Your task to perform on an android device: empty trash in the gmail app Image 0: 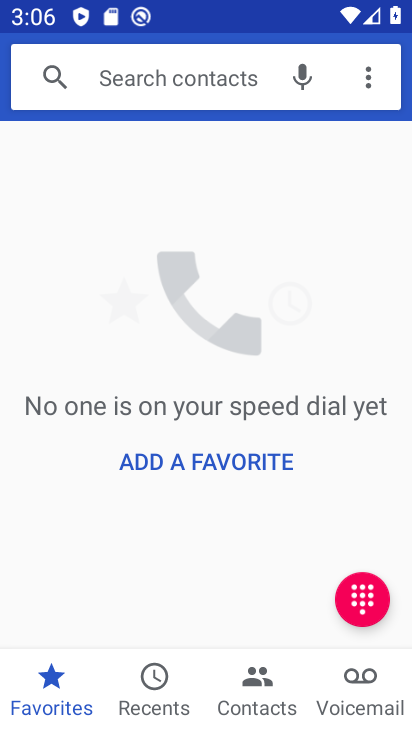
Step 0: press home button
Your task to perform on an android device: empty trash in the gmail app Image 1: 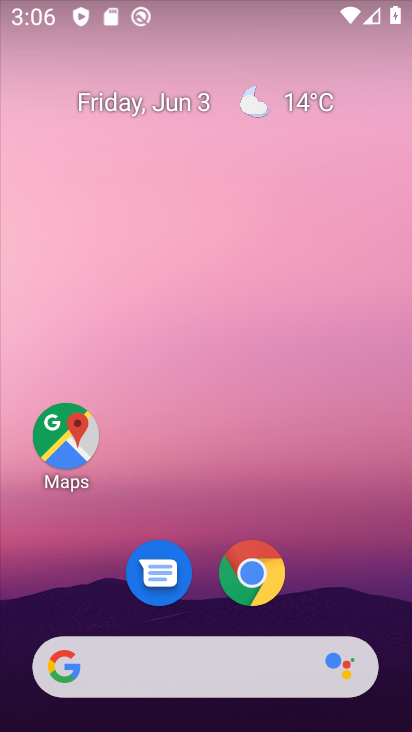
Step 1: drag from (314, 522) to (316, 136)
Your task to perform on an android device: empty trash in the gmail app Image 2: 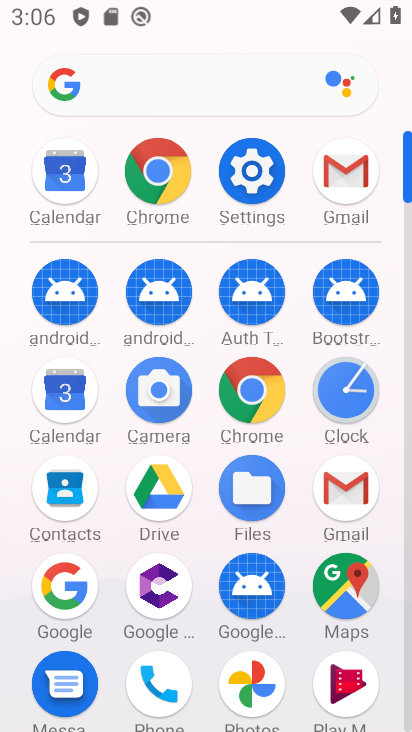
Step 2: click (340, 498)
Your task to perform on an android device: empty trash in the gmail app Image 3: 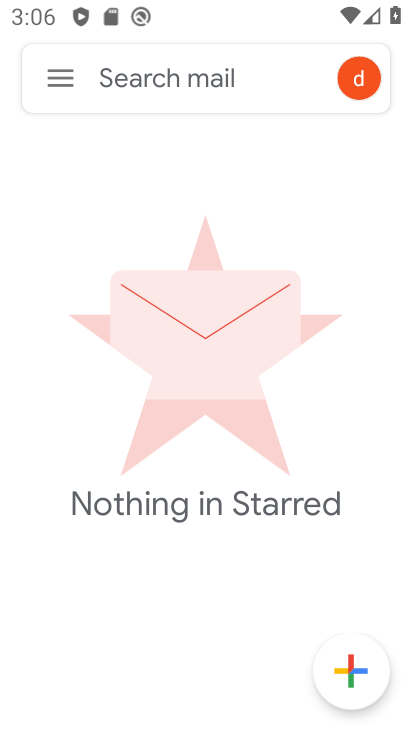
Step 3: click (52, 64)
Your task to perform on an android device: empty trash in the gmail app Image 4: 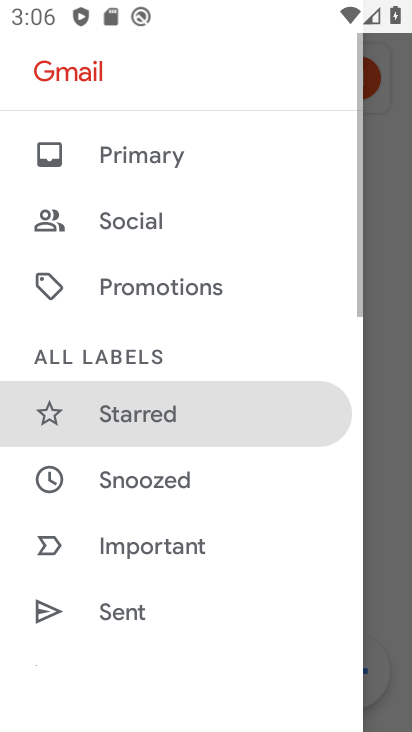
Step 4: drag from (212, 629) to (200, 92)
Your task to perform on an android device: empty trash in the gmail app Image 5: 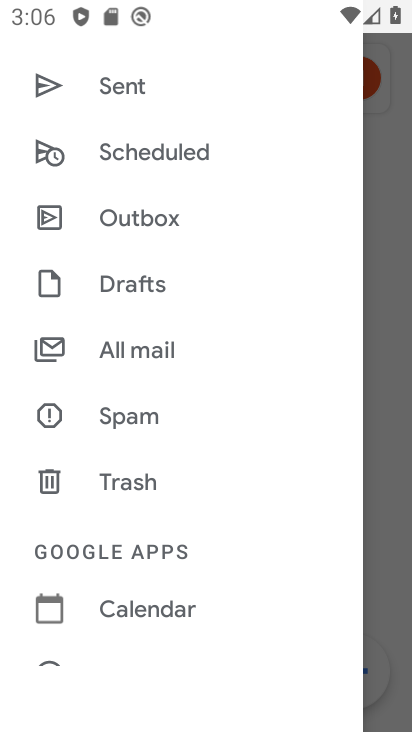
Step 5: click (164, 483)
Your task to perform on an android device: empty trash in the gmail app Image 6: 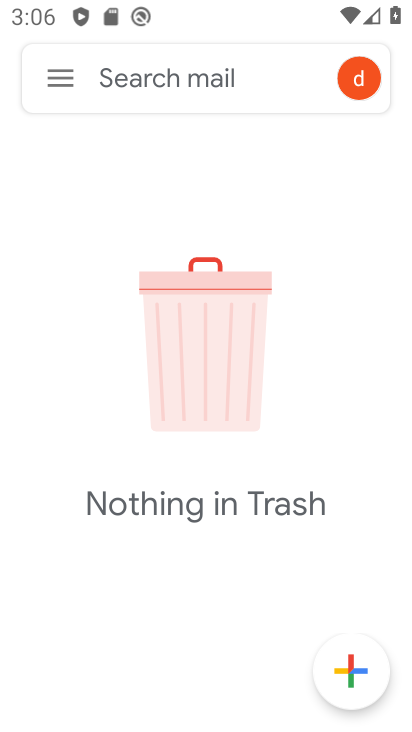
Step 6: task complete